Your task to perform on an android device: Open location settings Image 0: 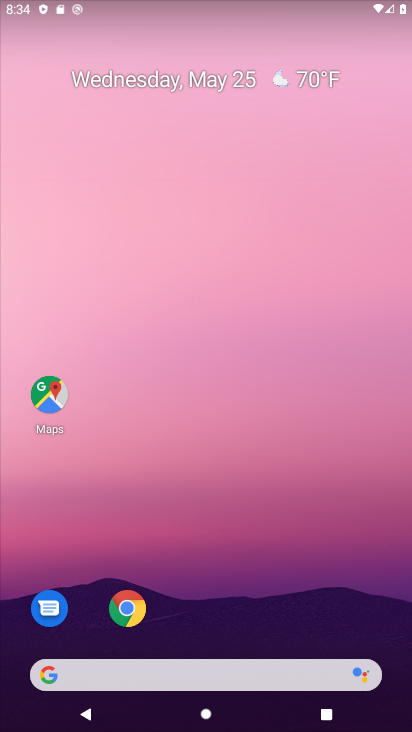
Step 0: drag from (284, 481) to (198, 45)
Your task to perform on an android device: Open location settings Image 1: 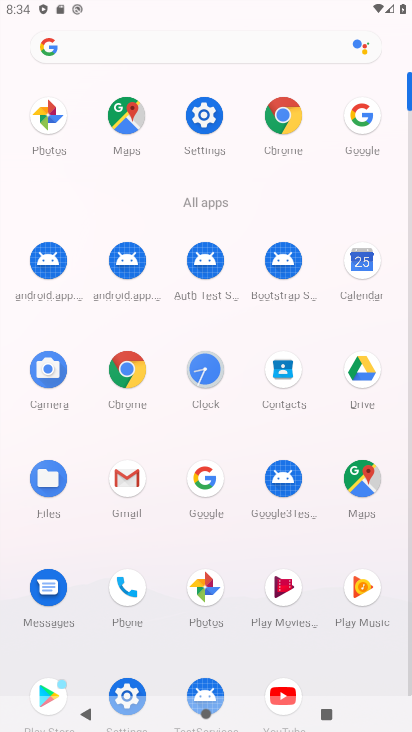
Step 1: click (214, 112)
Your task to perform on an android device: Open location settings Image 2: 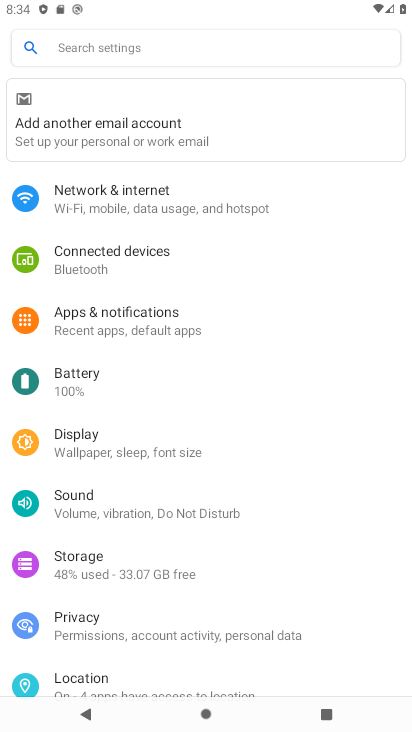
Step 2: click (159, 687)
Your task to perform on an android device: Open location settings Image 3: 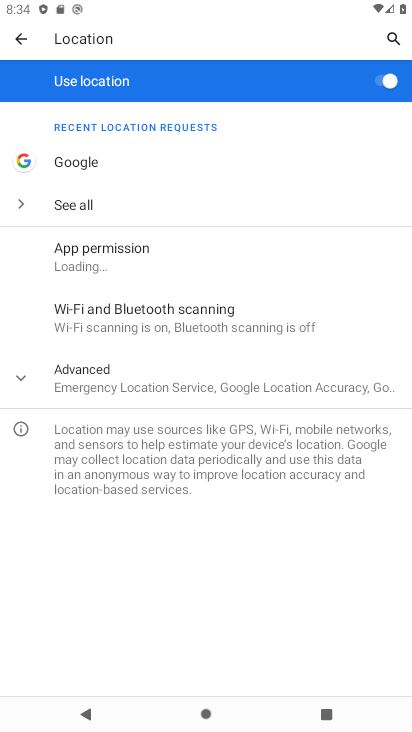
Step 3: task complete